Your task to perform on an android device: Open CNN.com Image 0: 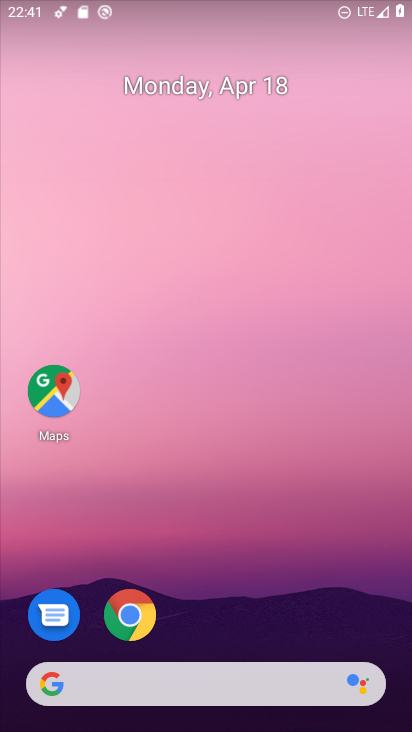
Step 0: click (132, 619)
Your task to perform on an android device: Open CNN.com Image 1: 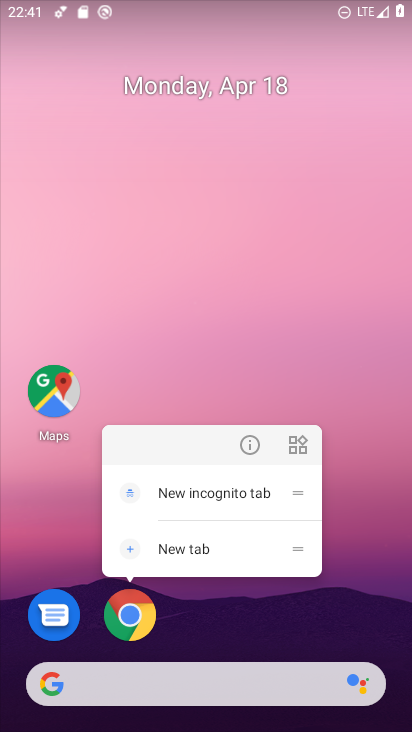
Step 1: click (134, 616)
Your task to perform on an android device: Open CNN.com Image 2: 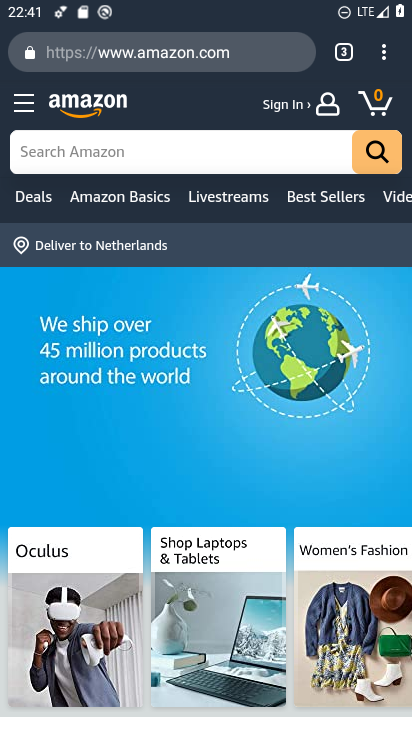
Step 2: click (163, 43)
Your task to perform on an android device: Open CNN.com Image 3: 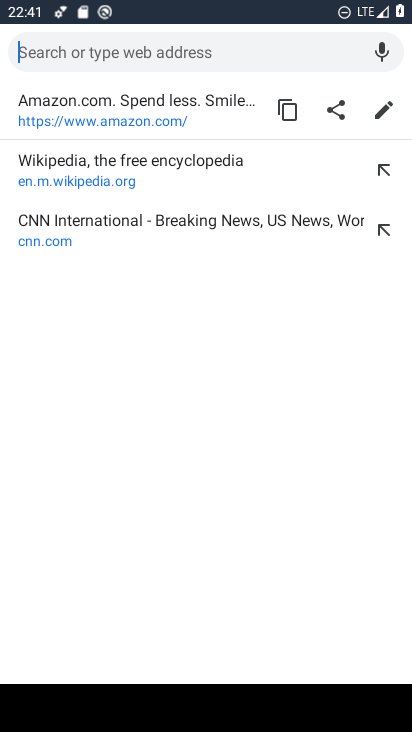
Step 3: type "cnn.com"
Your task to perform on an android device: Open CNN.com Image 4: 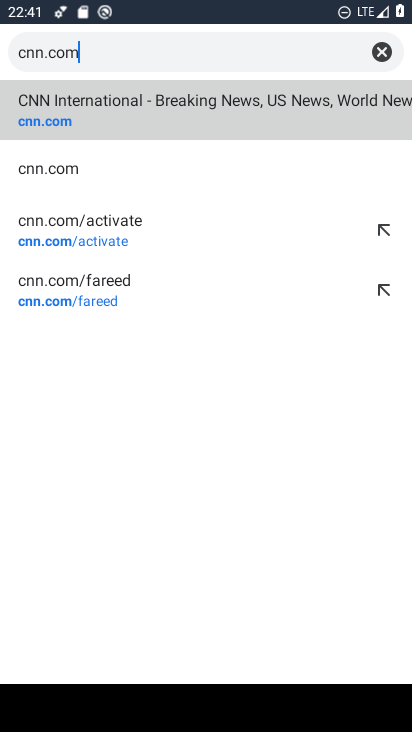
Step 4: click (41, 170)
Your task to perform on an android device: Open CNN.com Image 5: 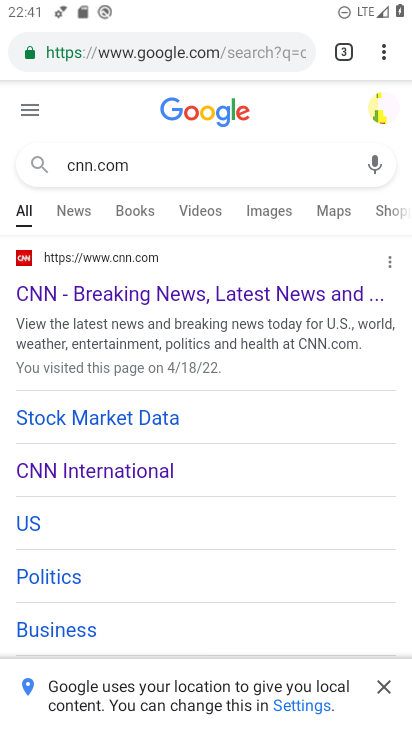
Step 5: task complete